Your task to perform on an android device: change text size in settings app Image 0: 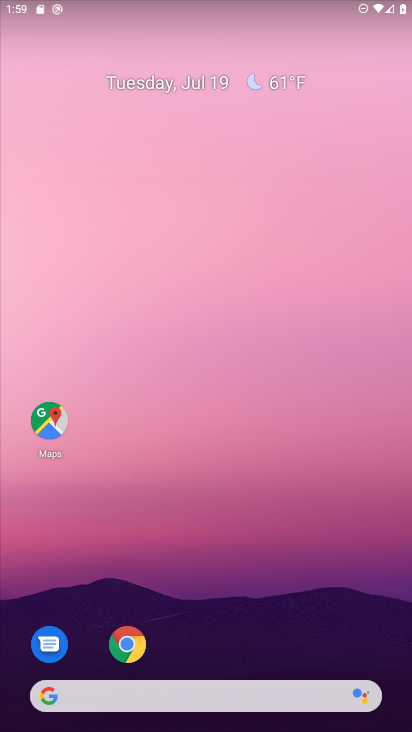
Step 0: drag from (207, 669) to (192, 38)
Your task to perform on an android device: change text size in settings app Image 1: 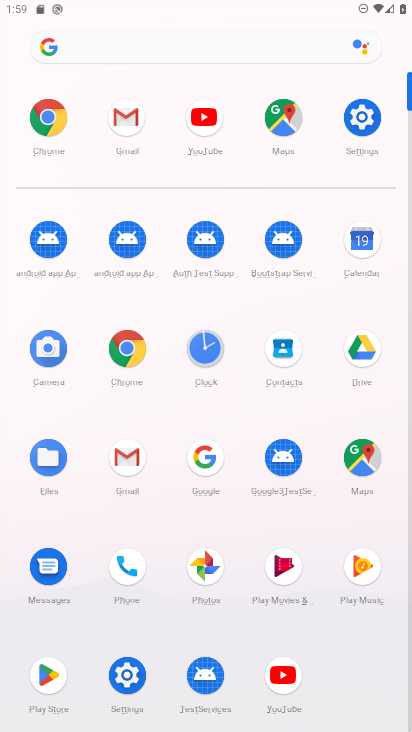
Step 1: click (137, 673)
Your task to perform on an android device: change text size in settings app Image 2: 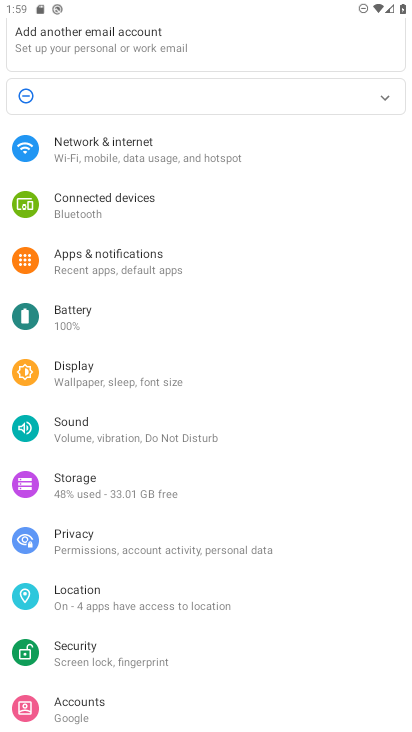
Step 2: click (67, 376)
Your task to perform on an android device: change text size in settings app Image 3: 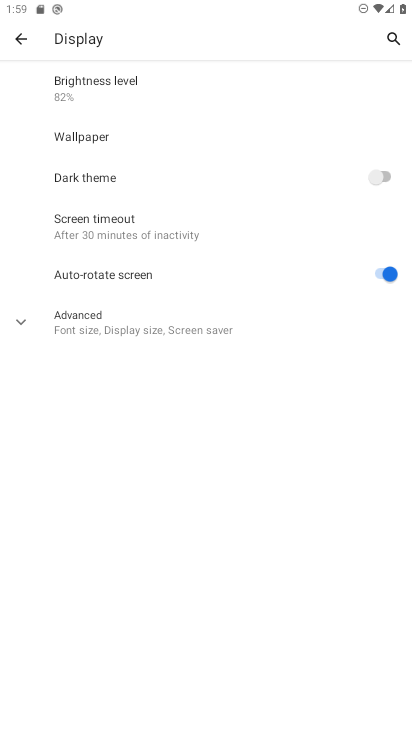
Step 3: click (82, 338)
Your task to perform on an android device: change text size in settings app Image 4: 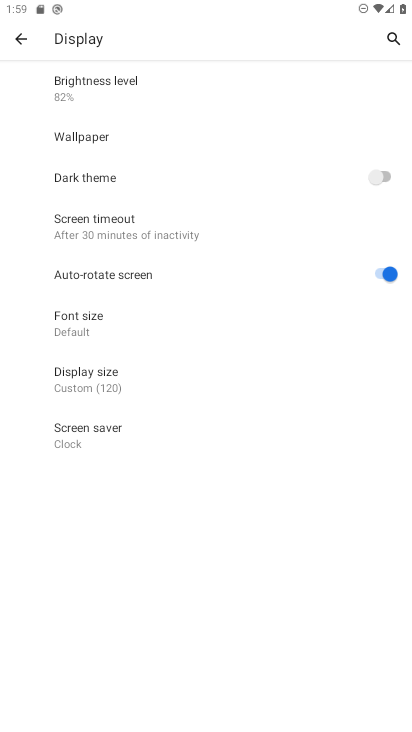
Step 4: click (77, 326)
Your task to perform on an android device: change text size in settings app Image 5: 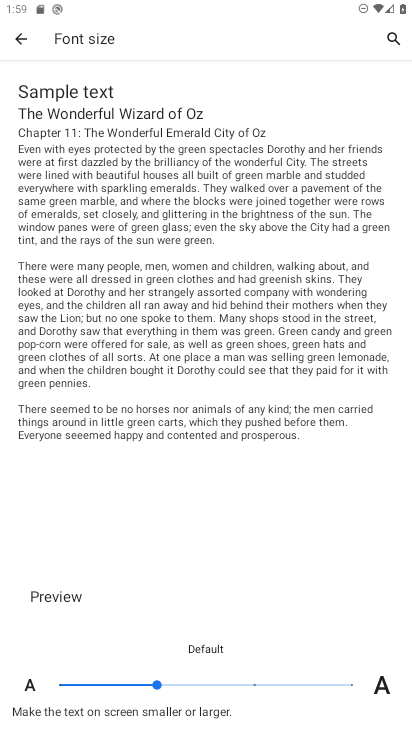
Step 5: click (254, 683)
Your task to perform on an android device: change text size in settings app Image 6: 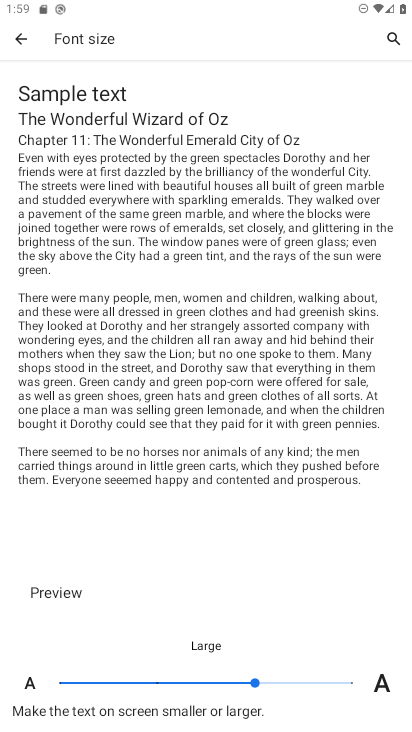
Step 6: task complete